Your task to perform on an android device: turn on javascript in the chrome app Image 0: 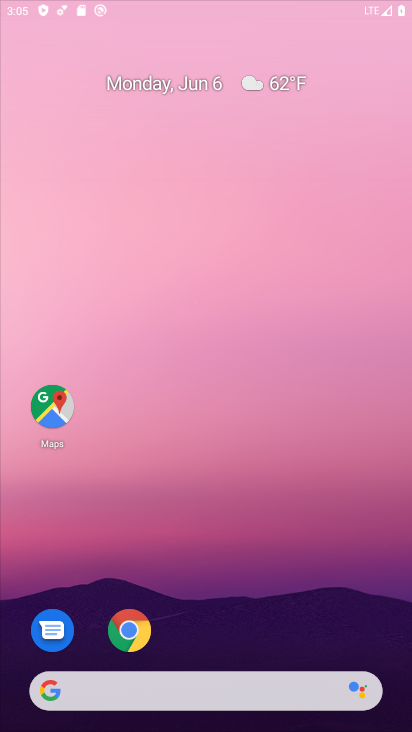
Step 0: press home button
Your task to perform on an android device: turn on javascript in the chrome app Image 1: 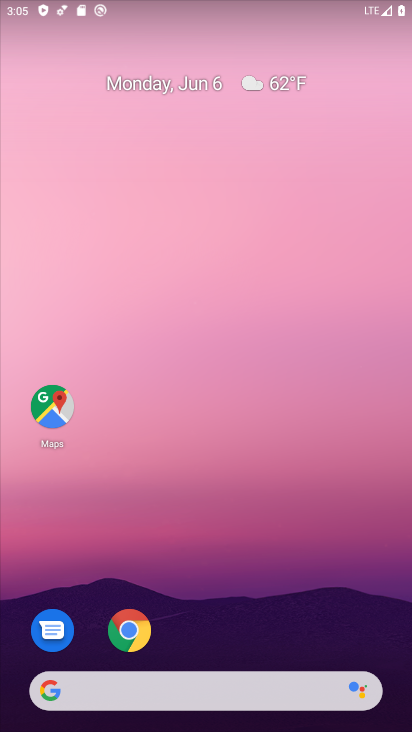
Step 1: click (139, 642)
Your task to perform on an android device: turn on javascript in the chrome app Image 2: 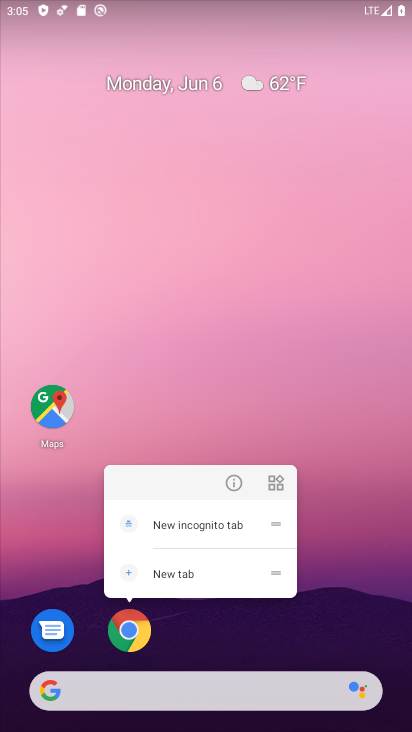
Step 2: click (121, 634)
Your task to perform on an android device: turn on javascript in the chrome app Image 3: 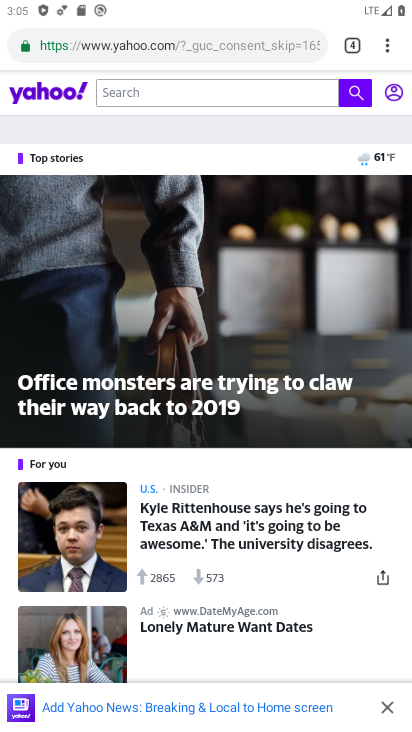
Step 3: drag from (398, 47) to (233, 542)
Your task to perform on an android device: turn on javascript in the chrome app Image 4: 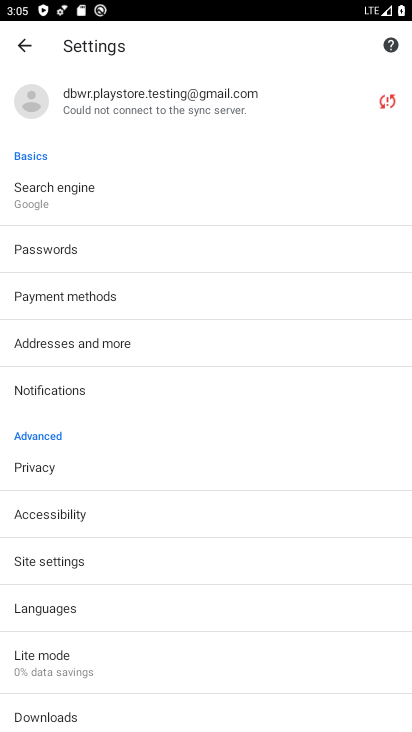
Step 4: click (60, 566)
Your task to perform on an android device: turn on javascript in the chrome app Image 5: 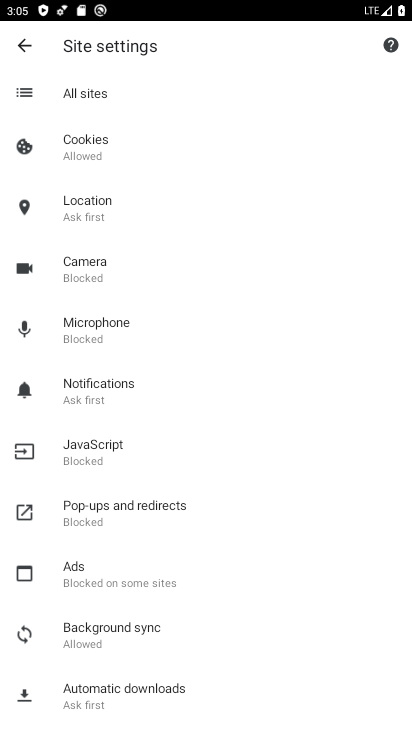
Step 5: click (78, 451)
Your task to perform on an android device: turn on javascript in the chrome app Image 6: 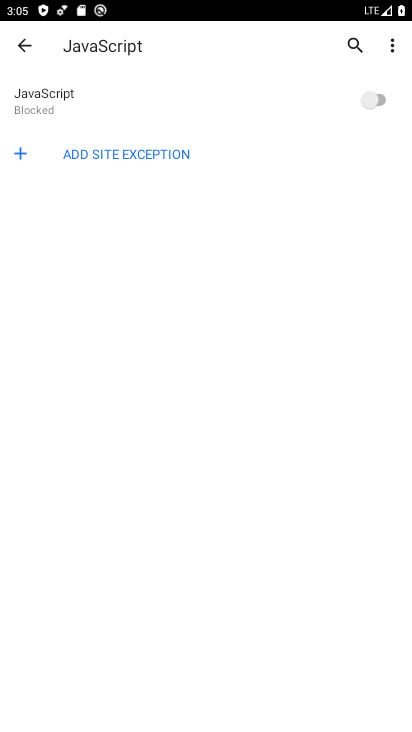
Step 6: task complete